Your task to perform on an android device: star an email in the gmail app Image 0: 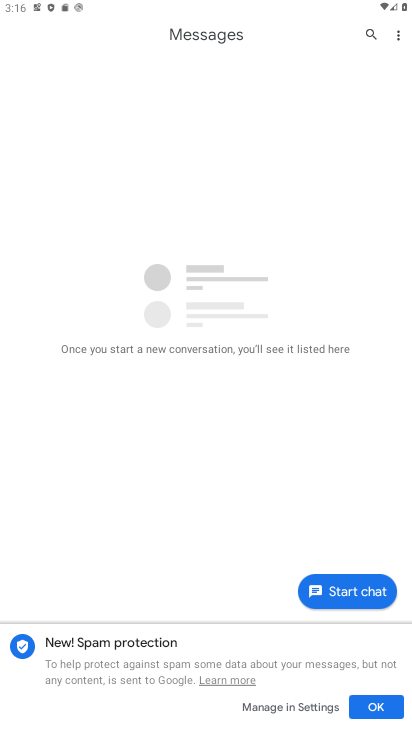
Step 0: press home button
Your task to perform on an android device: star an email in the gmail app Image 1: 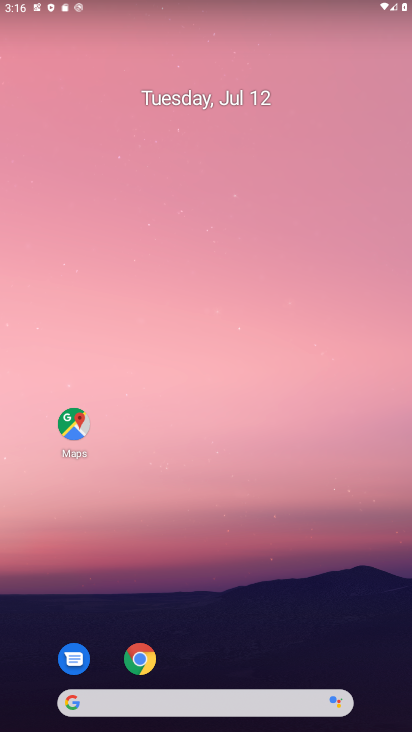
Step 1: drag from (226, 629) to (241, 117)
Your task to perform on an android device: star an email in the gmail app Image 2: 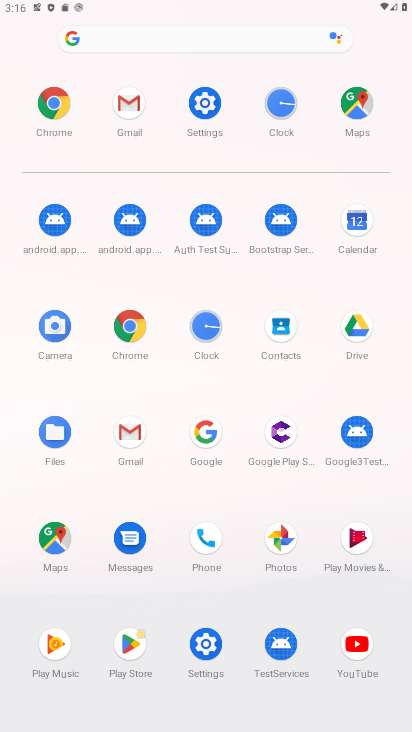
Step 2: click (122, 437)
Your task to perform on an android device: star an email in the gmail app Image 3: 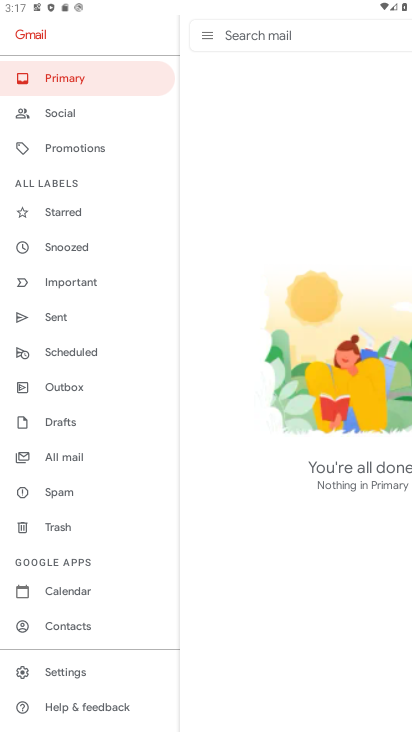
Step 3: task complete